Your task to perform on an android device: Clear the cart on ebay.com. Image 0: 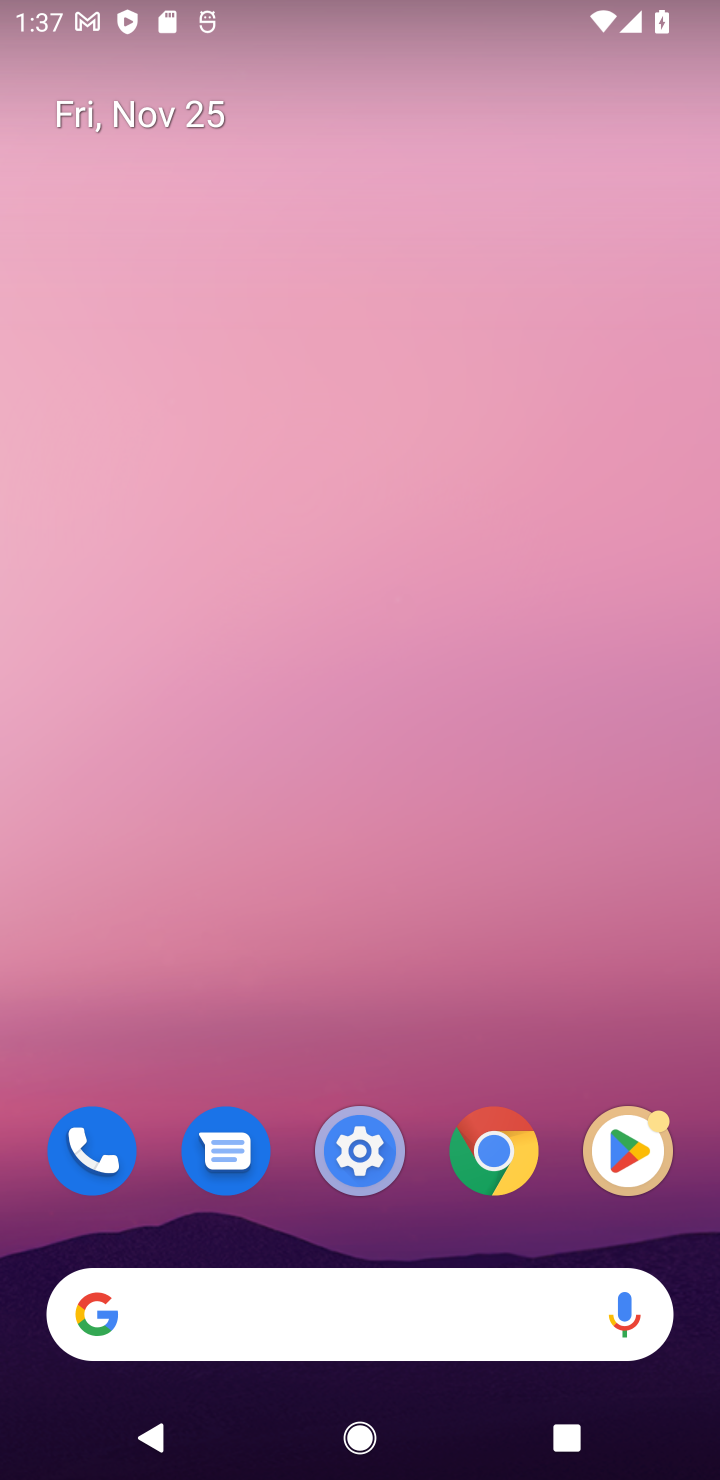
Step 0: click (293, 1344)
Your task to perform on an android device: Clear the cart on ebay.com. Image 1: 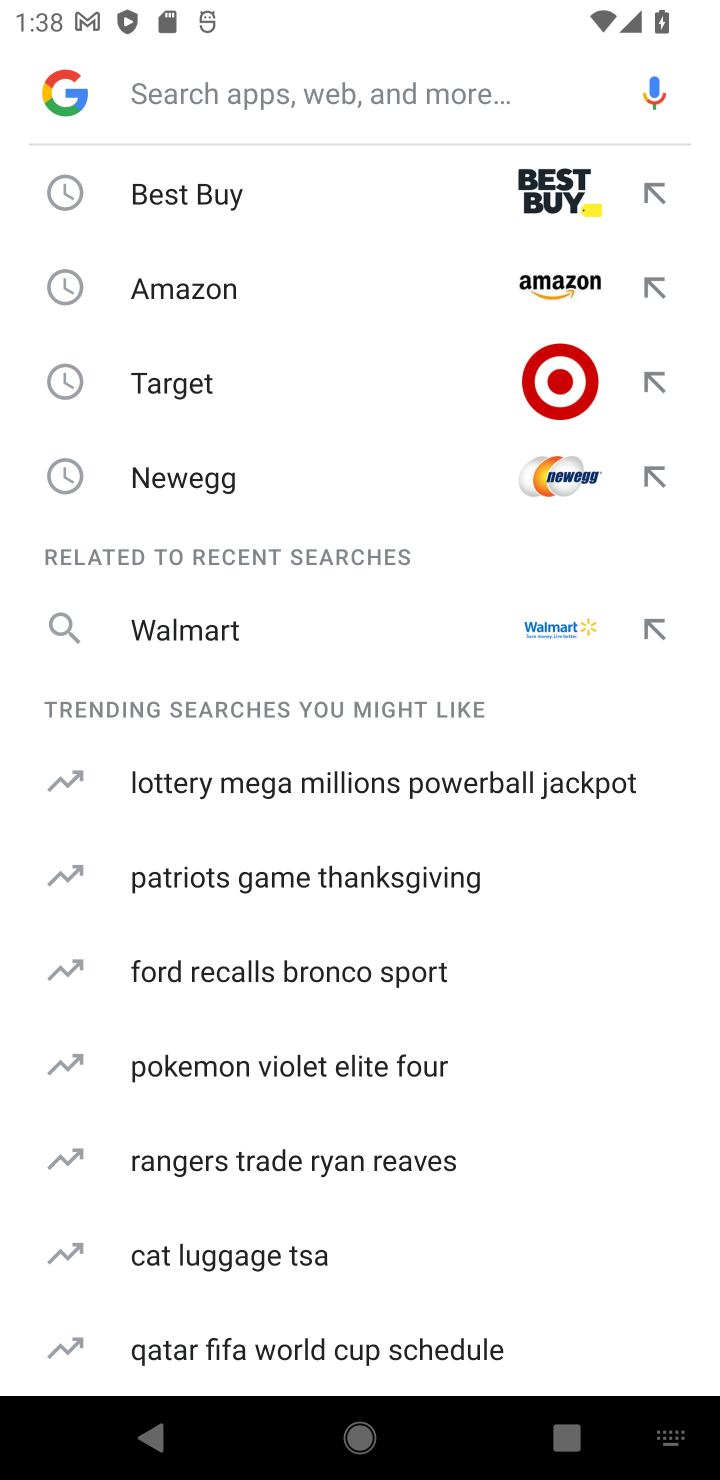
Step 1: type "ebay.com"
Your task to perform on an android device: Clear the cart on ebay.com. Image 2: 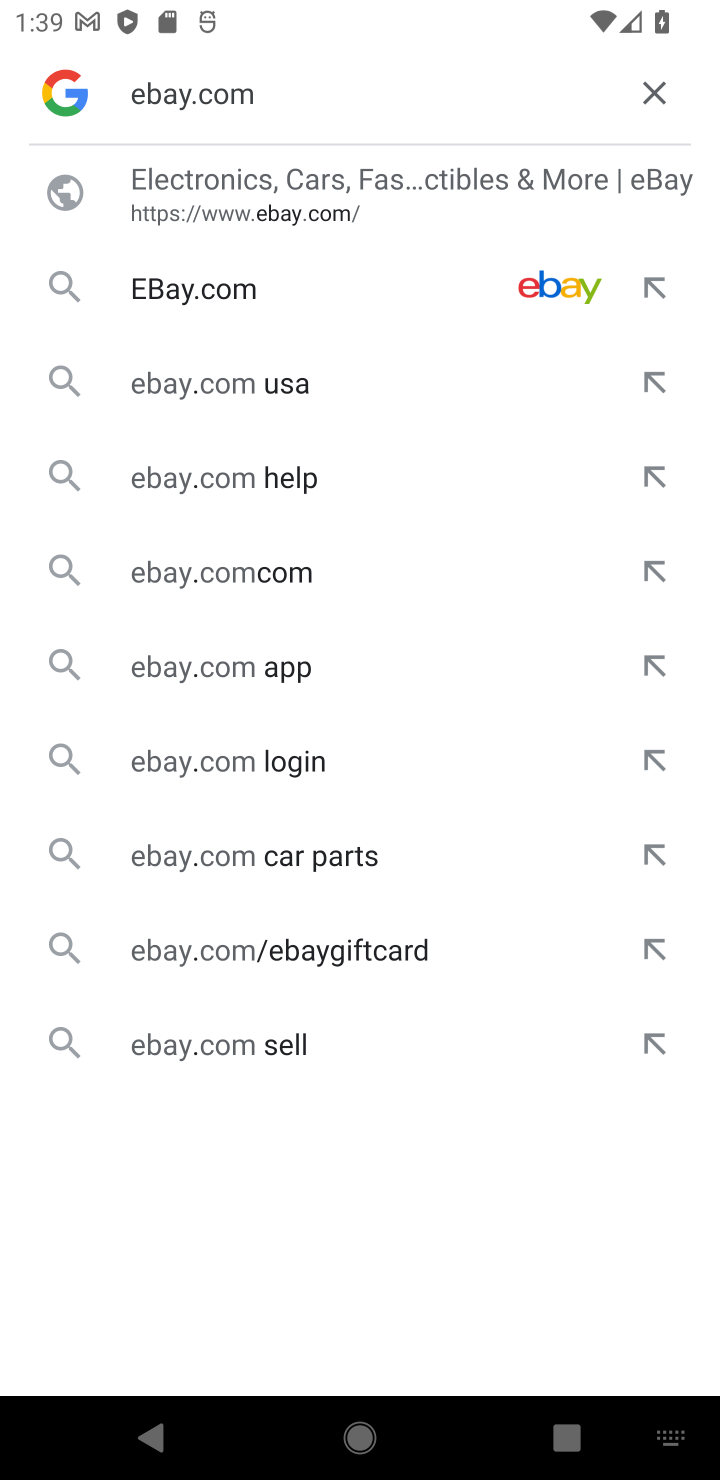
Step 2: click (211, 315)
Your task to perform on an android device: Clear the cart on ebay.com. Image 3: 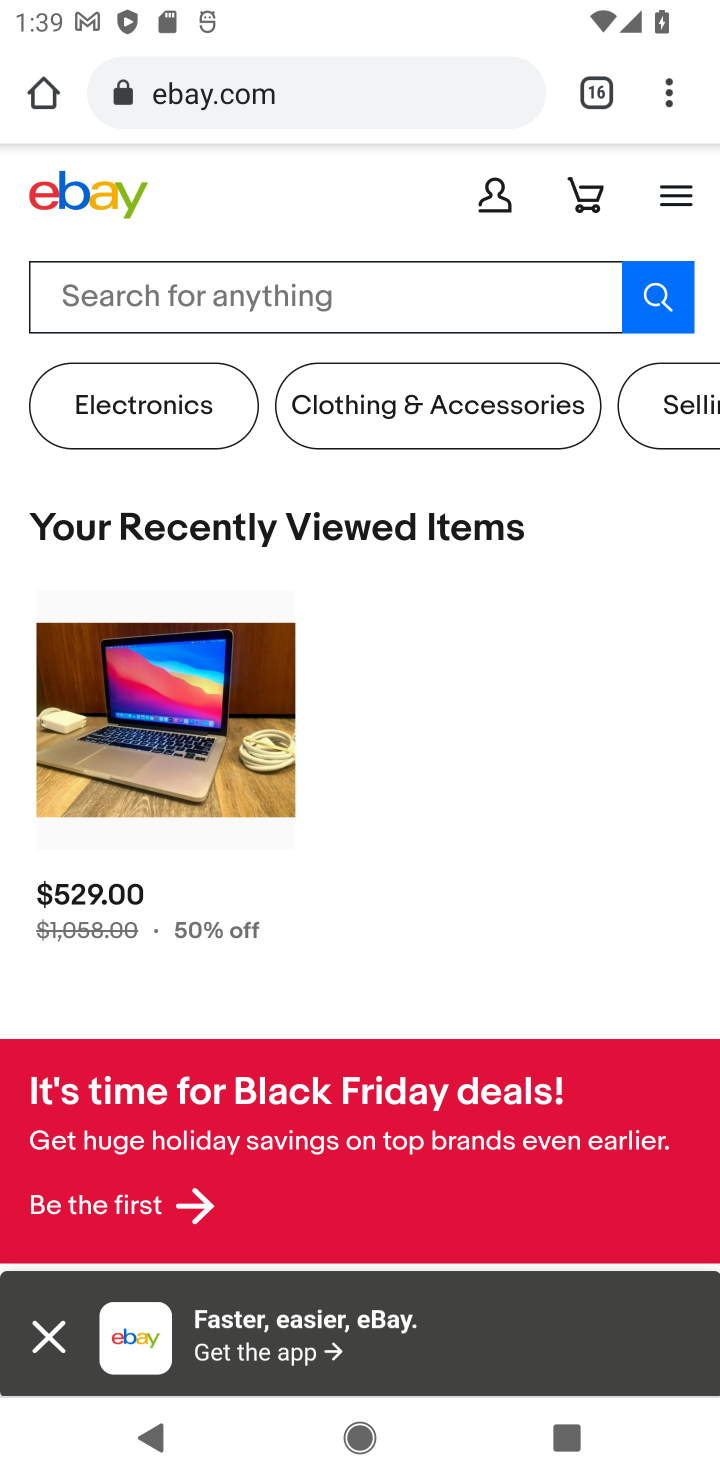
Step 3: task complete